Your task to perform on an android device: Go to Yahoo.com Image 0: 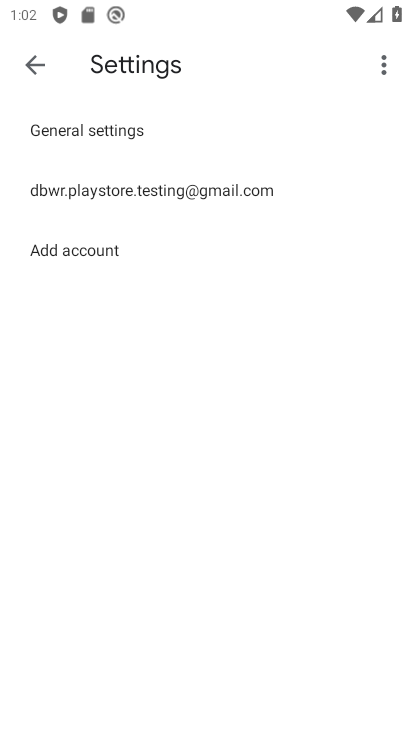
Step 0: press home button
Your task to perform on an android device: Go to Yahoo.com Image 1: 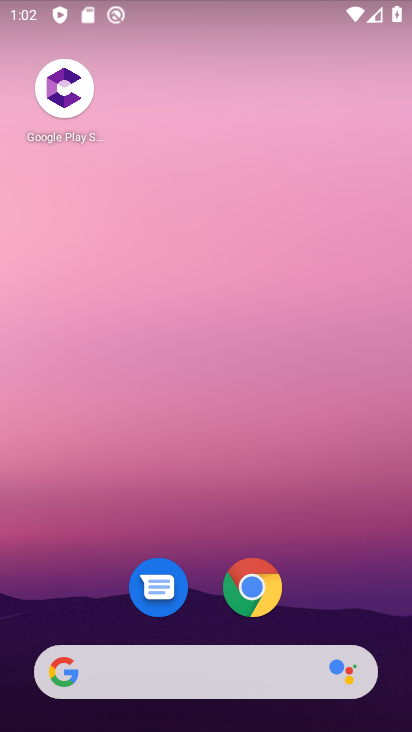
Step 1: drag from (208, 627) to (206, 81)
Your task to perform on an android device: Go to Yahoo.com Image 2: 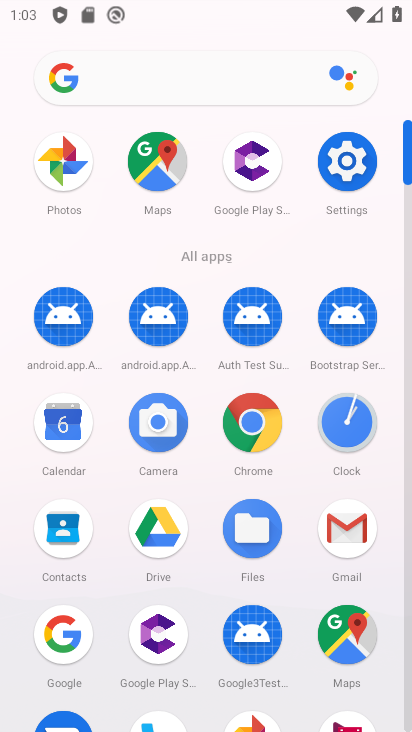
Step 2: click (250, 415)
Your task to perform on an android device: Go to Yahoo.com Image 3: 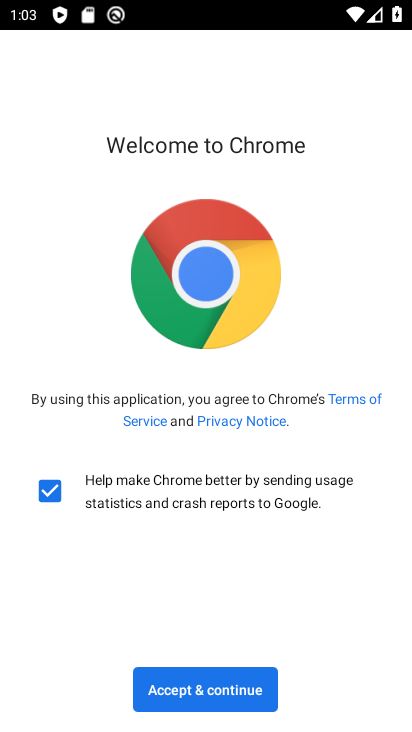
Step 3: click (198, 685)
Your task to perform on an android device: Go to Yahoo.com Image 4: 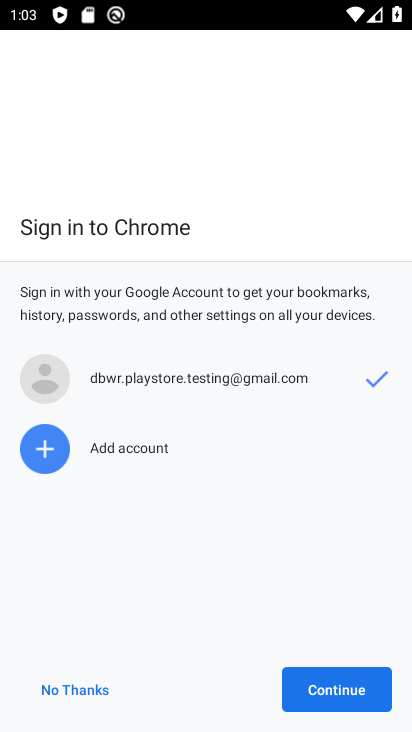
Step 4: click (339, 687)
Your task to perform on an android device: Go to Yahoo.com Image 5: 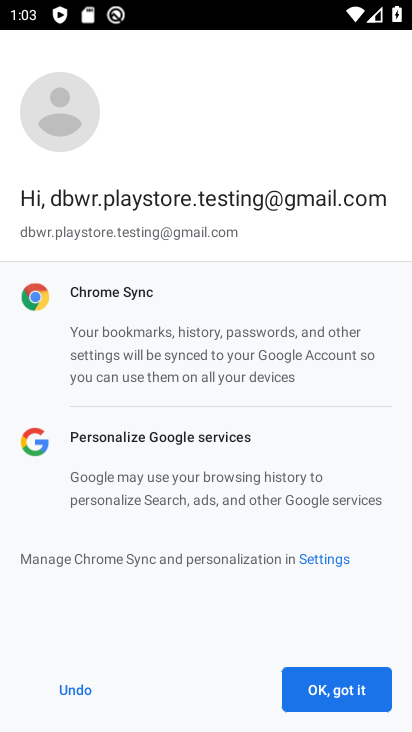
Step 5: click (331, 683)
Your task to perform on an android device: Go to Yahoo.com Image 6: 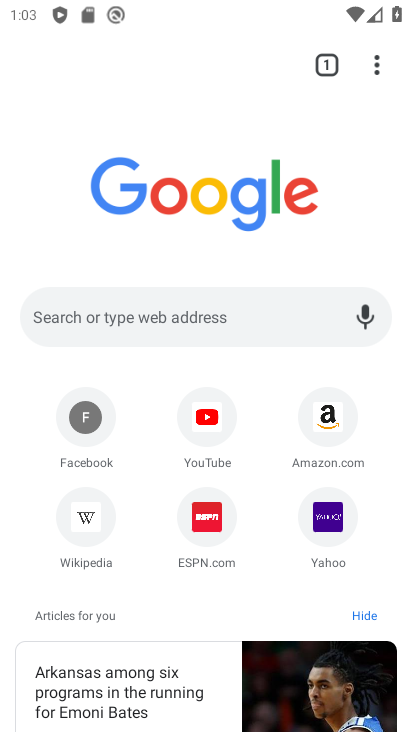
Step 6: click (332, 518)
Your task to perform on an android device: Go to Yahoo.com Image 7: 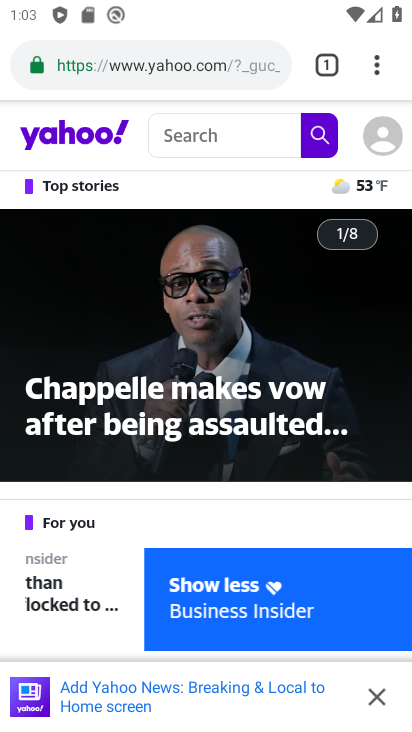
Step 7: task complete